Your task to perform on an android device: open a bookmark in the chrome app Image 0: 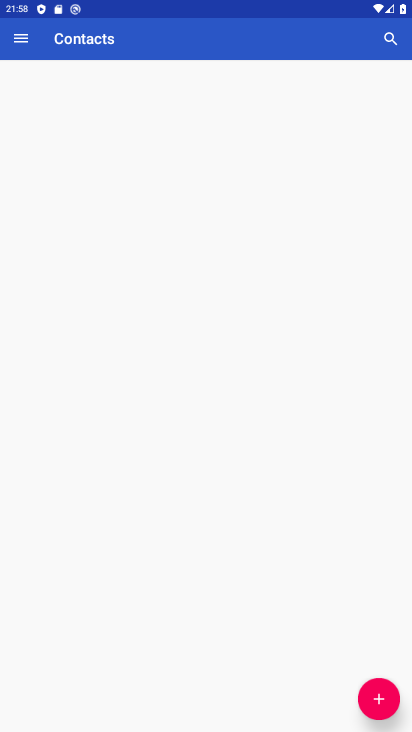
Step 0: click (127, 646)
Your task to perform on an android device: open a bookmark in the chrome app Image 1: 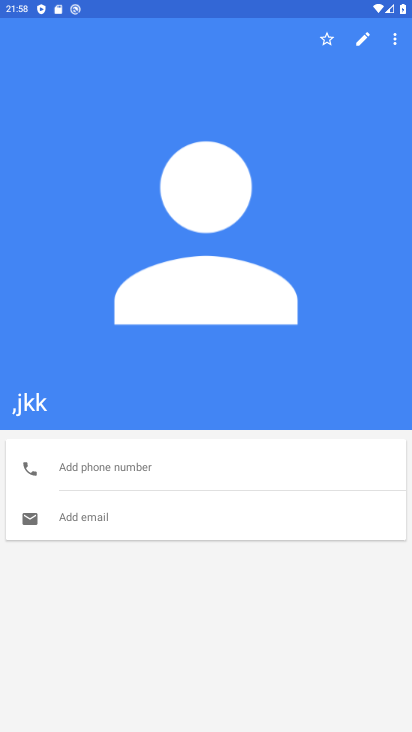
Step 1: press home button
Your task to perform on an android device: open a bookmark in the chrome app Image 2: 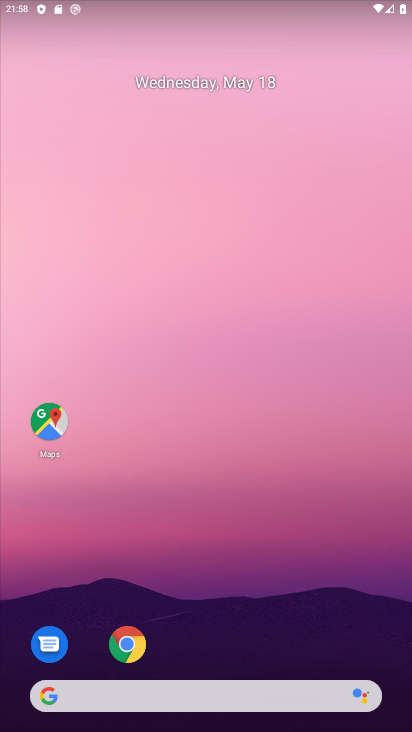
Step 2: click (132, 651)
Your task to perform on an android device: open a bookmark in the chrome app Image 3: 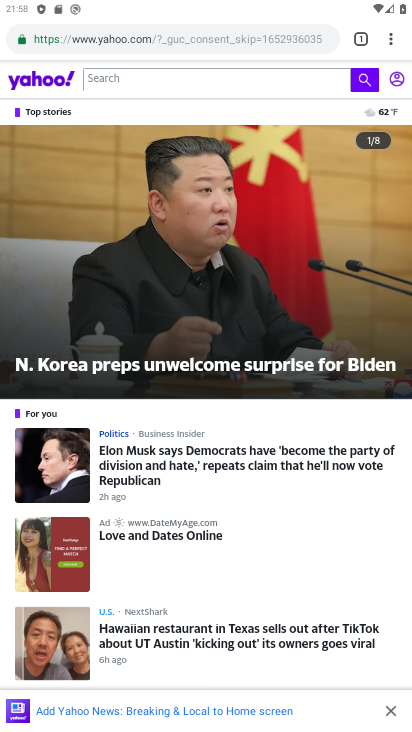
Step 3: task complete